Your task to perform on an android device: check battery use Image 0: 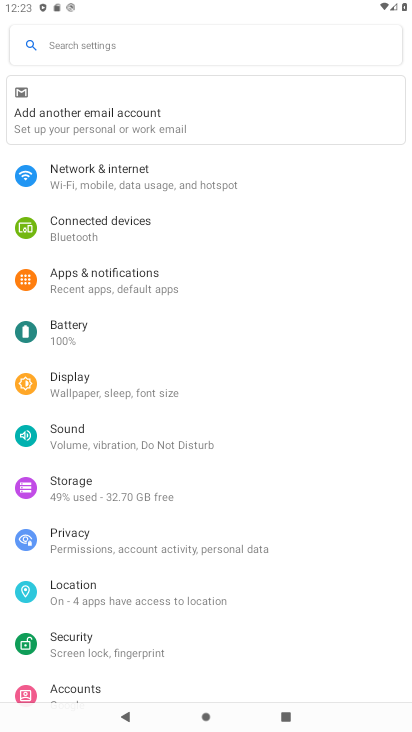
Step 0: click (108, 332)
Your task to perform on an android device: check battery use Image 1: 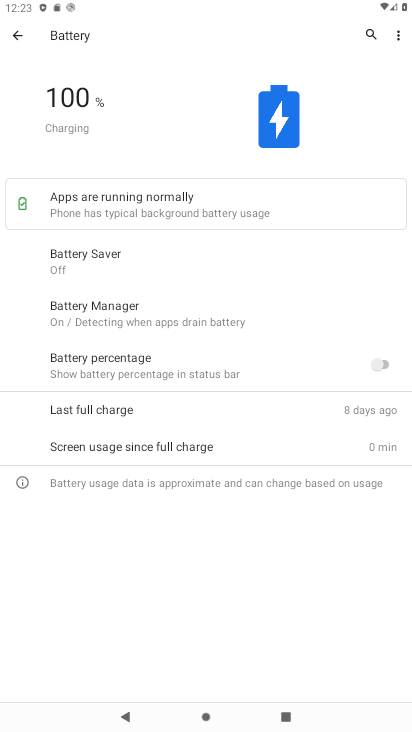
Step 1: click (400, 28)
Your task to perform on an android device: check battery use Image 2: 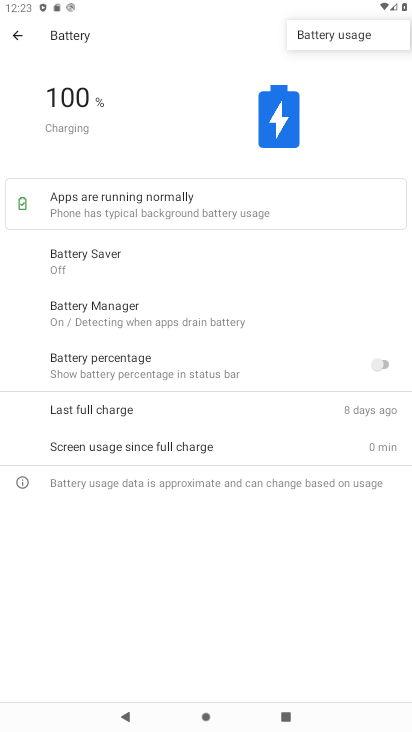
Step 2: click (380, 39)
Your task to perform on an android device: check battery use Image 3: 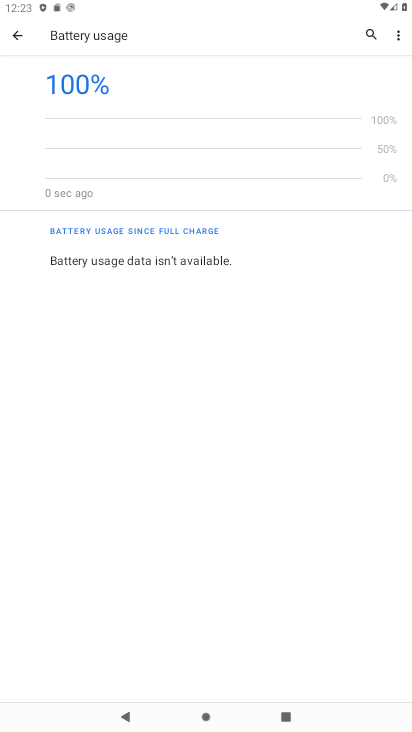
Step 3: task complete